Your task to perform on an android device: open device folders in google photos Image 0: 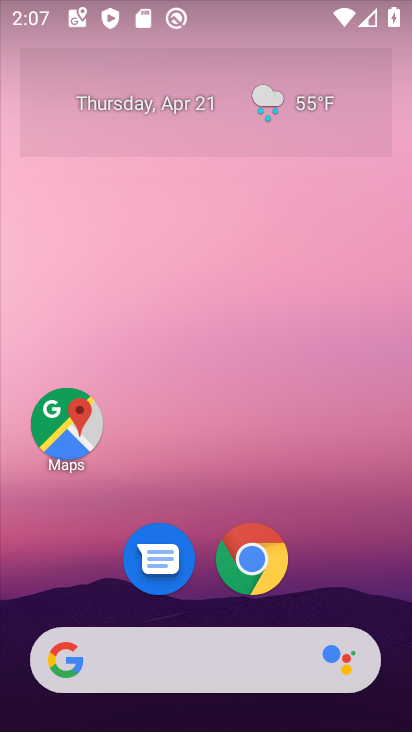
Step 0: drag from (209, 493) to (183, 51)
Your task to perform on an android device: open device folders in google photos Image 1: 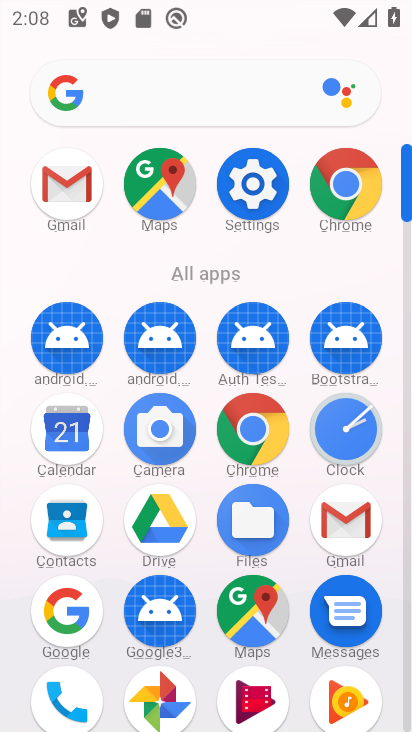
Step 1: drag from (200, 633) to (203, 385)
Your task to perform on an android device: open device folders in google photos Image 2: 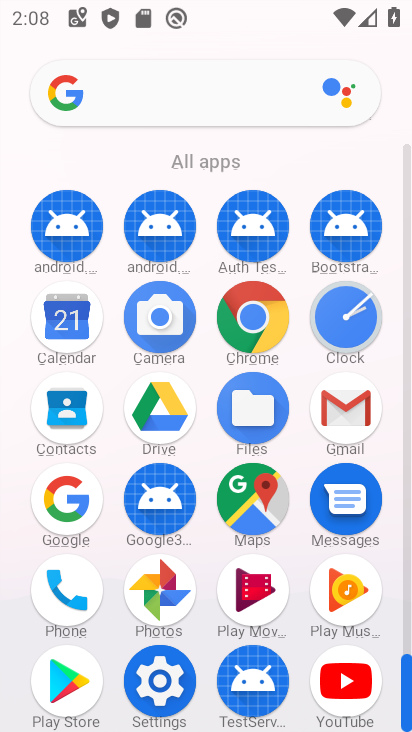
Step 2: click (164, 593)
Your task to perform on an android device: open device folders in google photos Image 3: 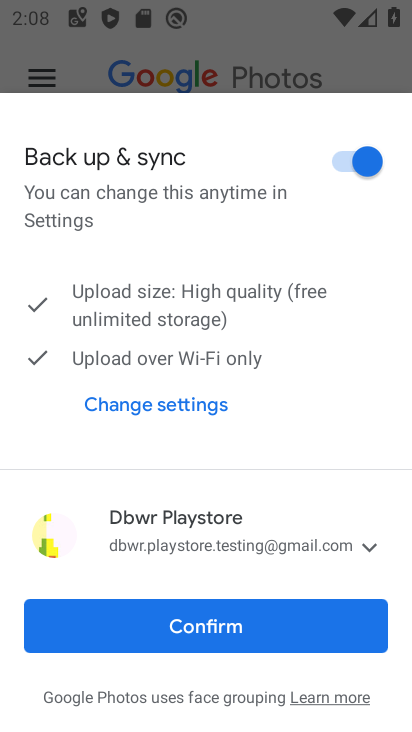
Step 3: click (217, 621)
Your task to perform on an android device: open device folders in google photos Image 4: 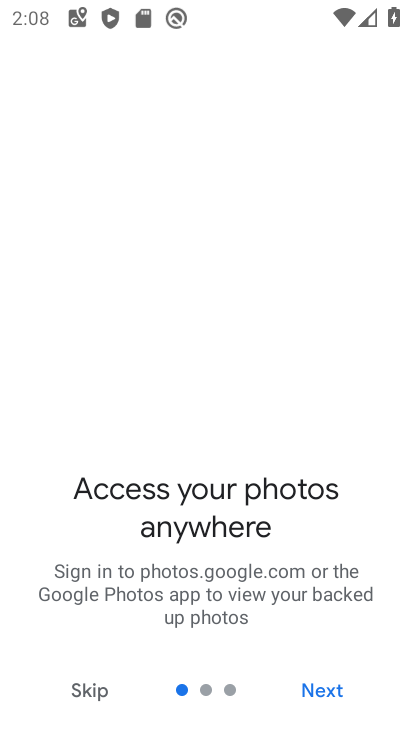
Step 4: click (314, 685)
Your task to perform on an android device: open device folders in google photos Image 5: 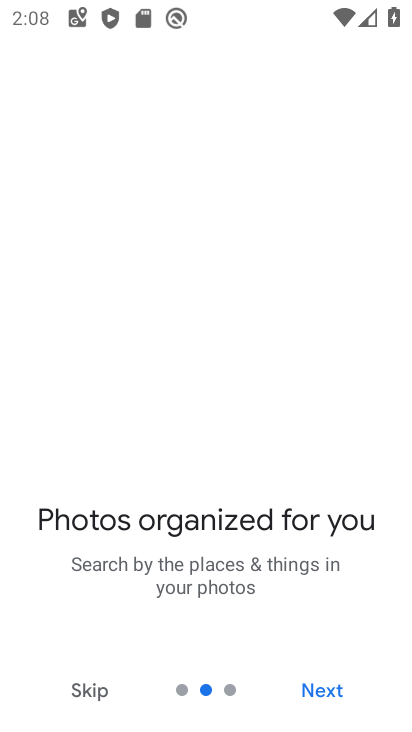
Step 5: click (314, 685)
Your task to perform on an android device: open device folders in google photos Image 6: 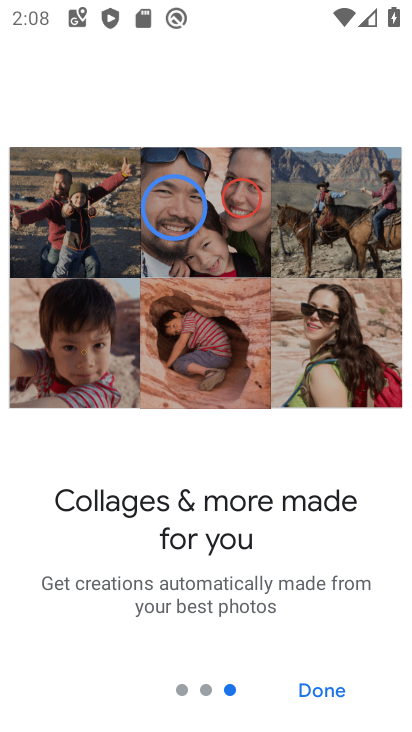
Step 6: click (314, 685)
Your task to perform on an android device: open device folders in google photos Image 7: 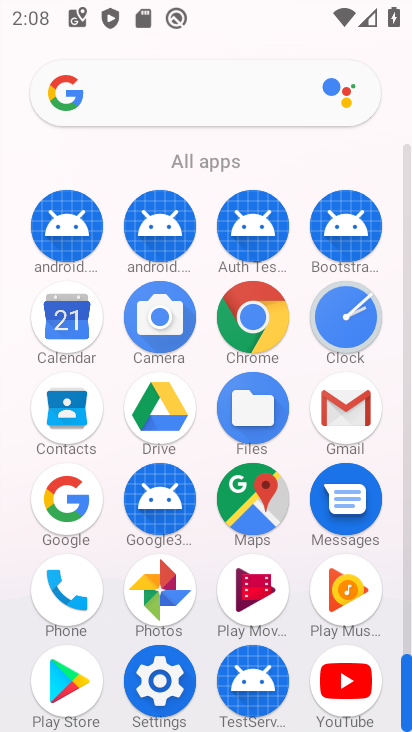
Step 7: click (163, 583)
Your task to perform on an android device: open device folders in google photos Image 8: 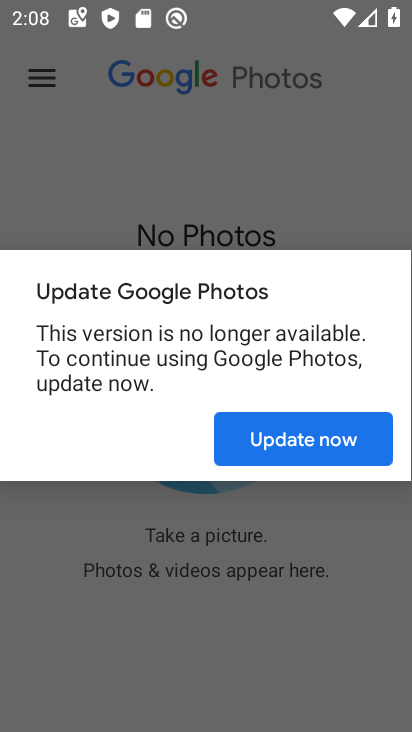
Step 8: click (287, 443)
Your task to perform on an android device: open device folders in google photos Image 9: 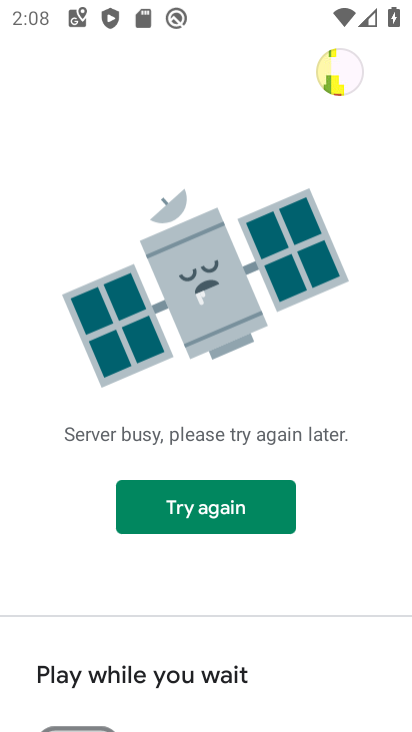
Step 9: task complete